Your task to perform on an android device: When is my next appointment? Image 0: 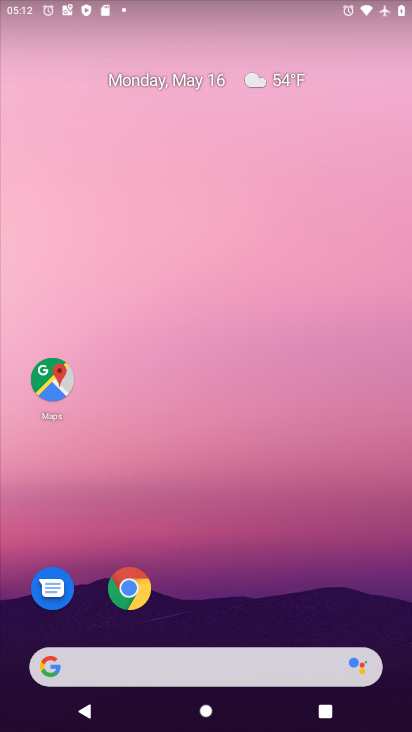
Step 0: drag from (252, 484) to (177, 0)
Your task to perform on an android device: When is my next appointment? Image 1: 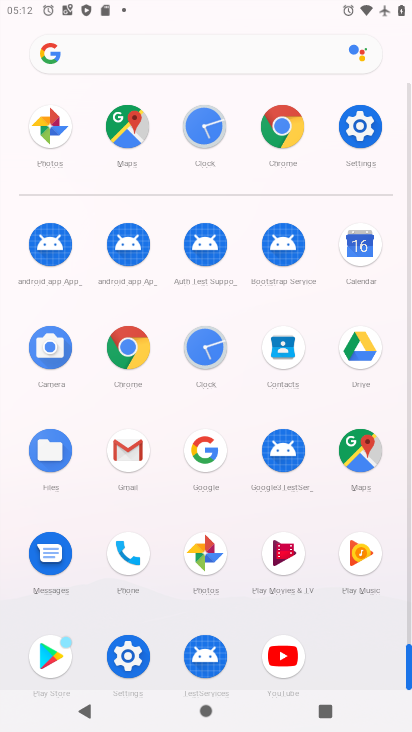
Step 1: drag from (3, 513) to (28, 209)
Your task to perform on an android device: When is my next appointment? Image 2: 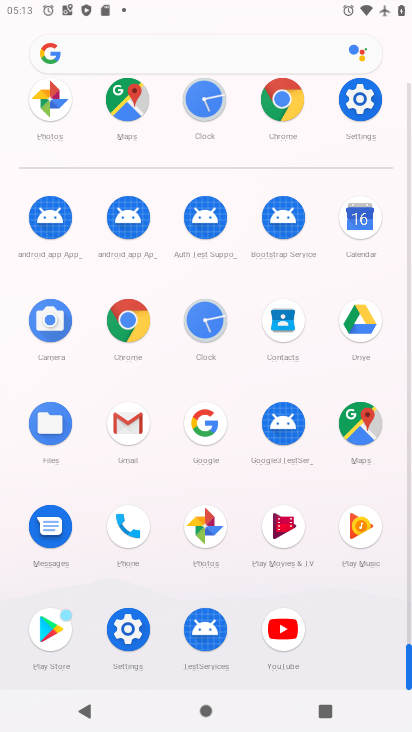
Step 2: click (358, 214)
Your task to perform on an android device: When is my next appointment? Image 3: 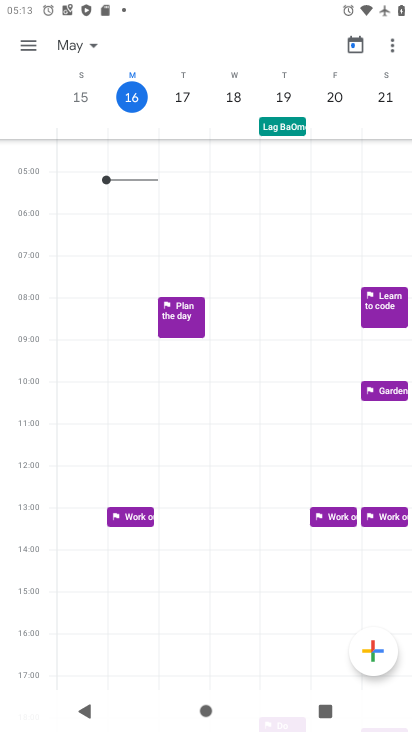
Step 3: click (25, 43)
Your task to perform on an android device: When is my next appointment? Image 4: 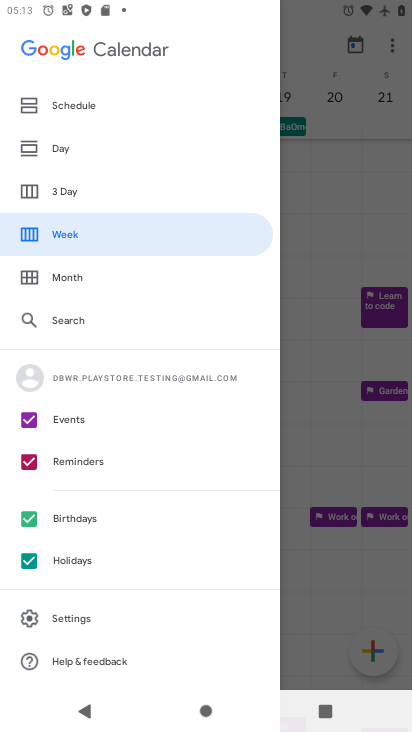
Step 4: click (103, 93)
Your task to perform on an android device: When is my next appointment? Image 5: 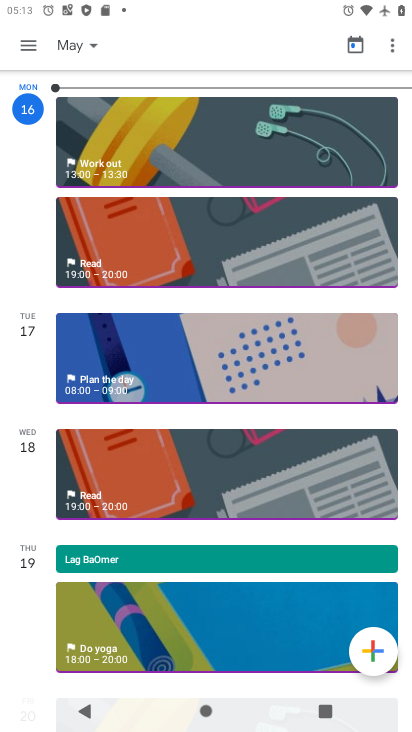
Step 5: task complete